Your task to perform on an android device: turn vacation reply on in the gmail app Image 0: 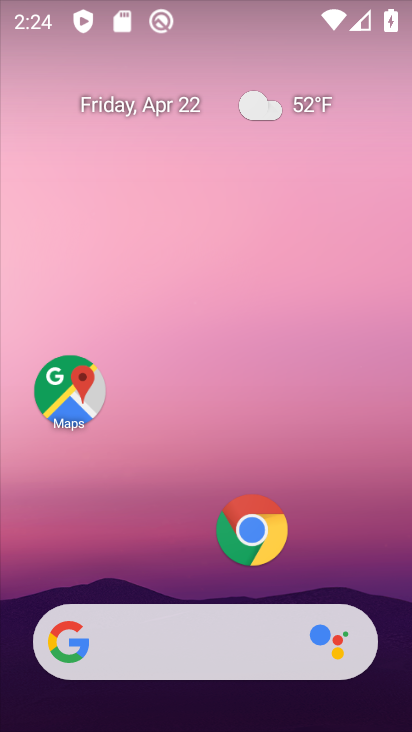
Step 0: drag from (171, 626) to (202, 139)
Your task to perform on an android device: turn vacation reply on in the gmail app Image 1: 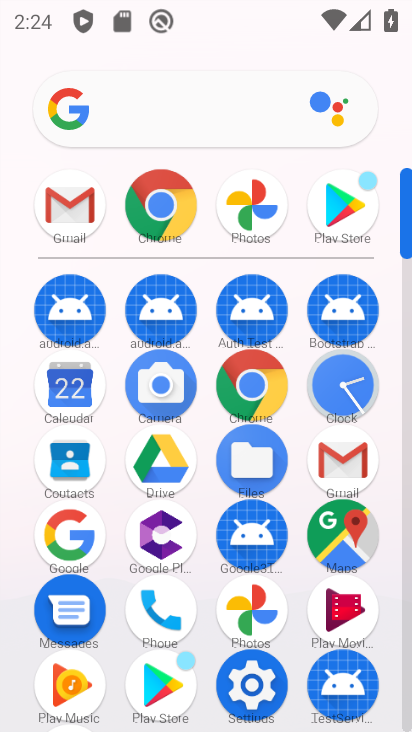
Step 1: click (341, 463)
Your task to perform on an android device: turn vacation reply on in the gmail app Image 2: 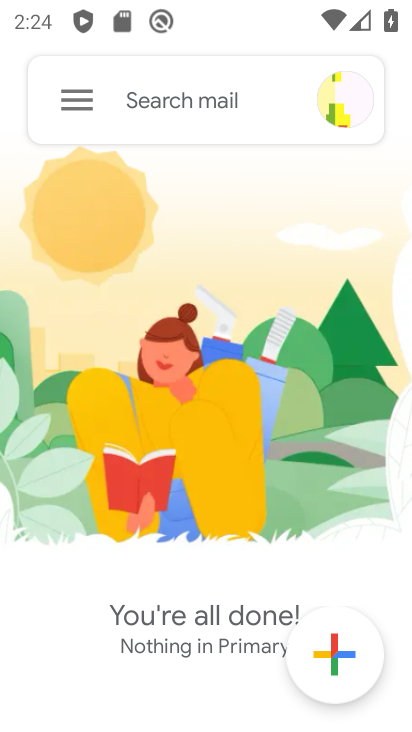
Step 2: click (71, 100)
Your task to perform on an android device: turn vacation reply on in the gmail app Image 3: 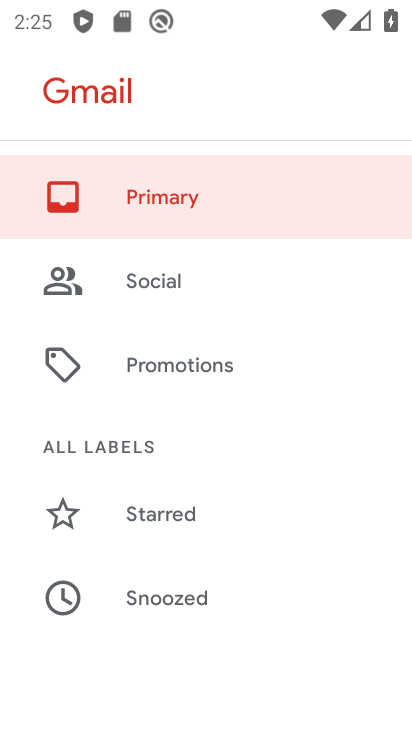
Step 3: drag from (131, 585) to (154, 22)
Your task to perform on an android device: turn vacation reply on in the gmail app Image 4: 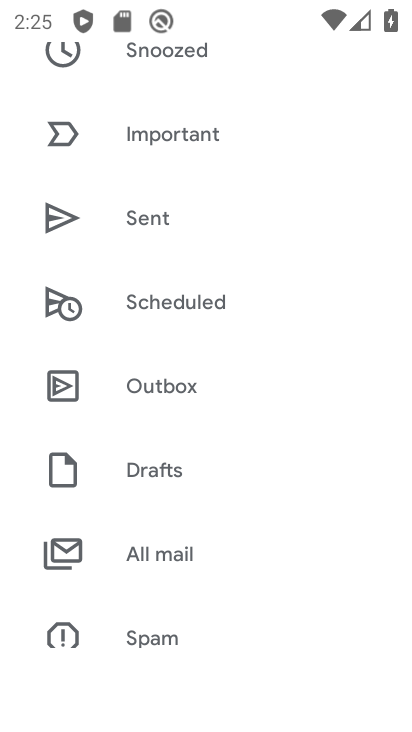
Step 4: drag from (145, 513) to (151, 47)
Your task to perform on an android device: turn vacation reply on in the gmail app Image 5: 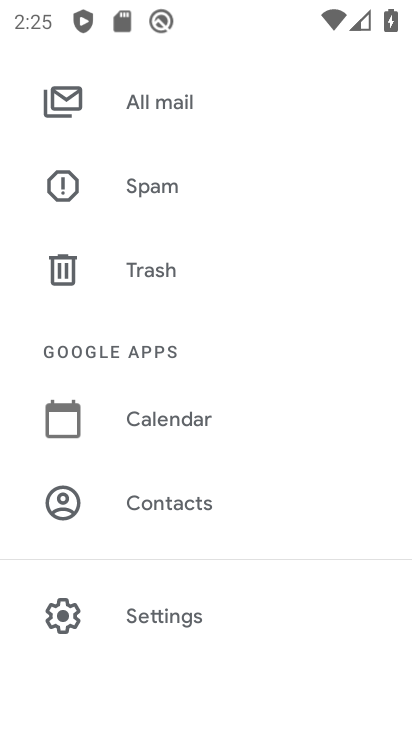
Step 5: click (178, 607)
Your task to perform on an android device: turn vacation reply on in the gmail app Image 6: 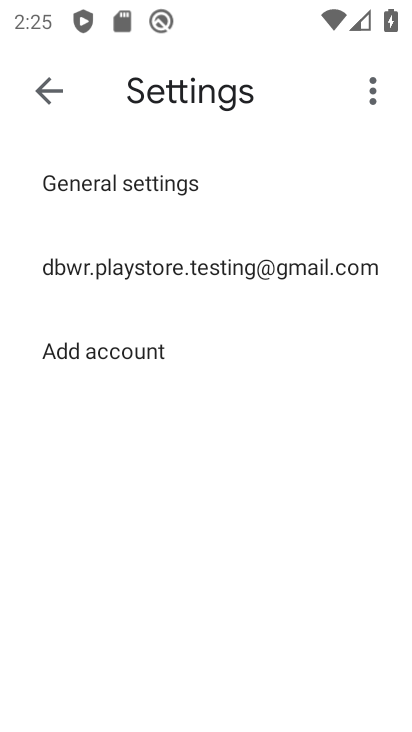
Step 6: click (247, 258)
Your task to perform on an android device: turn vacation reply on in the gmail app Image 7: 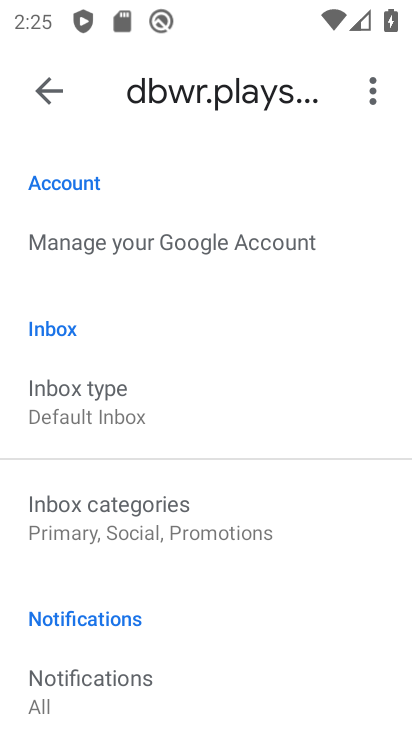
Step 7: drag from (95, 542) to (118, 157)
Your task to perform on an android device: turn vacation reply on in the gmail app Image 8: 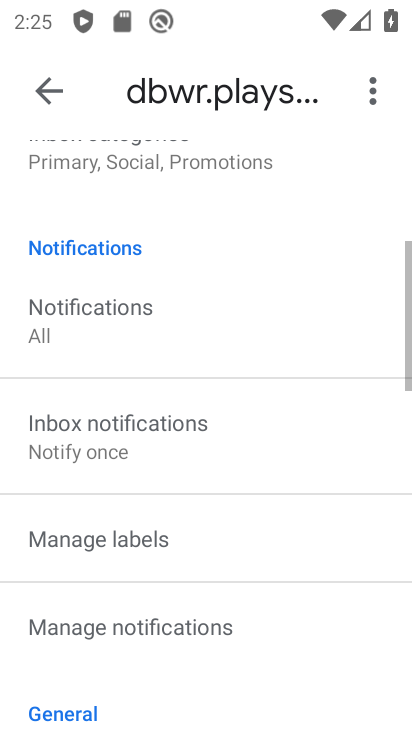
Step 8: drag from (207, 651) to (211, 259)
Your task to perform on an android device: turn vacation reply on in the gmail app Image 9: 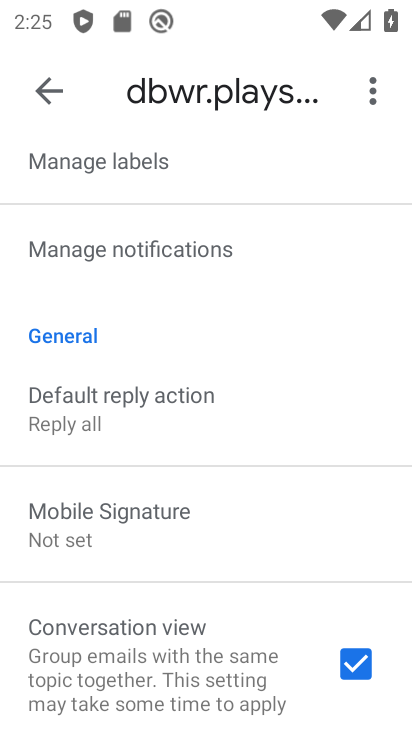
Step 9: drag from (166, 459) to (150, 133)
Your task to perform on an android device: turn vacation reply on in the gmail app Image 10: 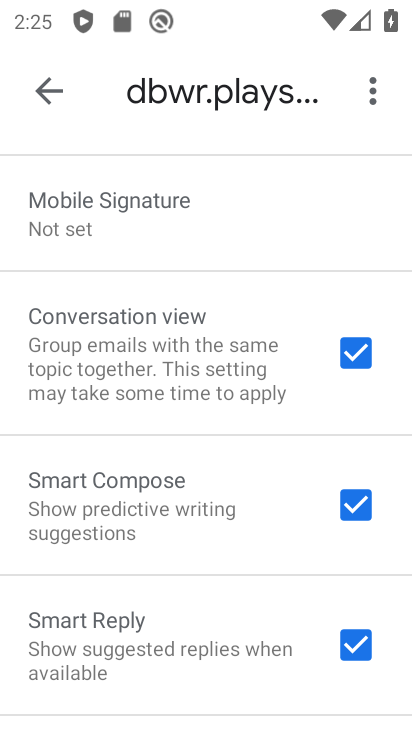
Step 10: drag from (181, 555) to (214, 44)
Your task to perform on an android device: turn vacation reply on in the gmail app Image 11: 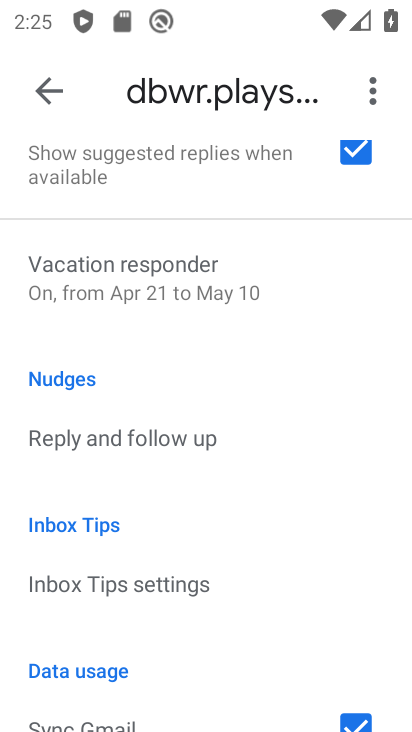
Step 11: click (174, 296)
Your task to perform on an android device: turn vacation reply on in the gmail app Image 12: 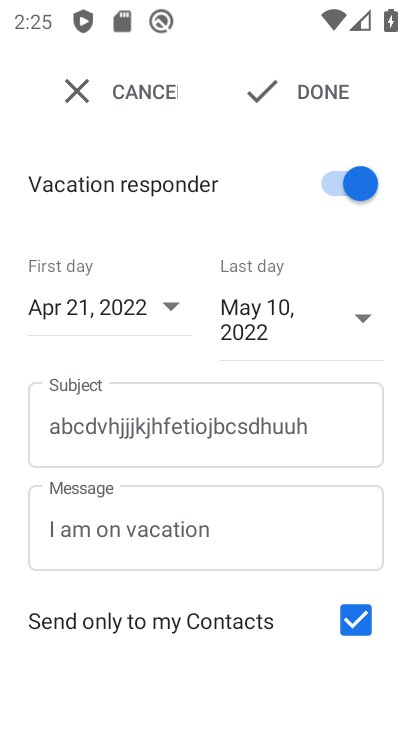
Step 12: click (279, 97)
Your task to perform on an android device: turn vacation reply on in the gmail app Image 13: 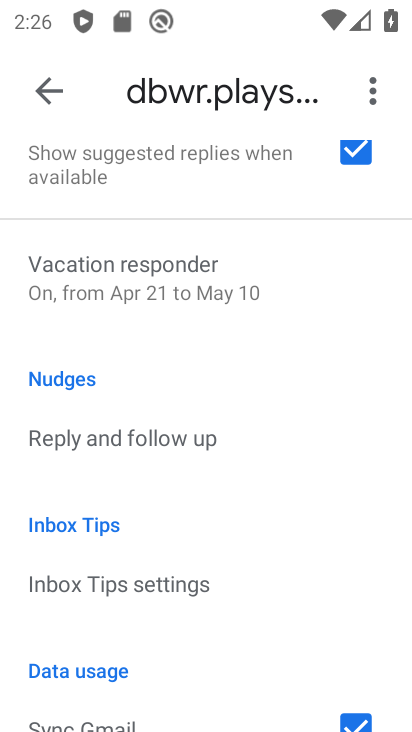
Step 13: task complete